Your task to perform on an android device: Go to Amazon Image 0: 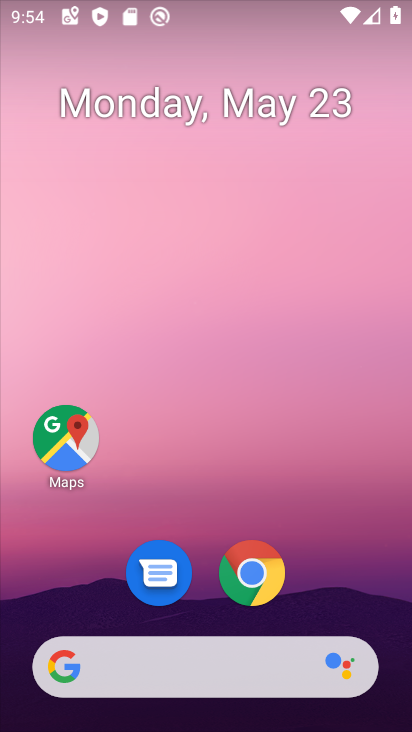
Step 0: drag from (396, 624) to (384, 414)
Your task to perform on an android device: Go to Amazon Image 1: 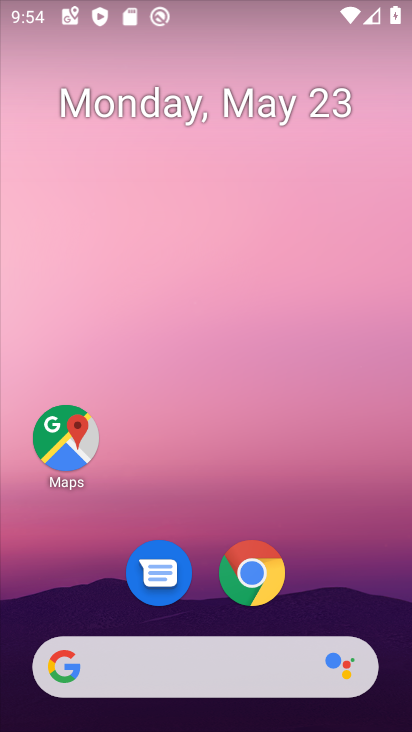
Step 1: drag from (355, 614) to (353, 233)
Your task to perform on an android device: Go to Amazon Image 2: 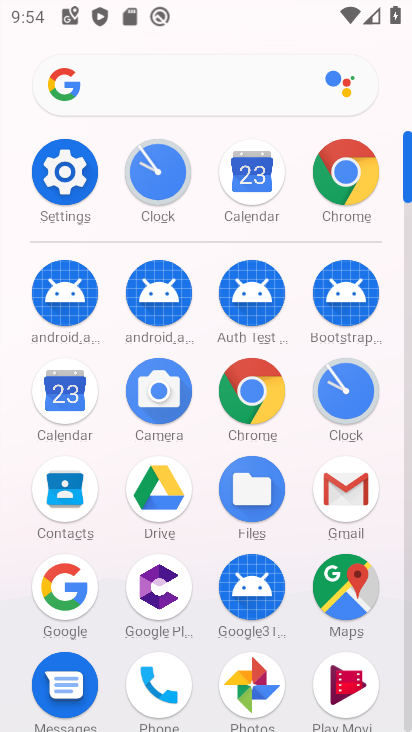
Step 2: click (240, 400)
Your task to perform on an android device: Go to Amazon Image 3: 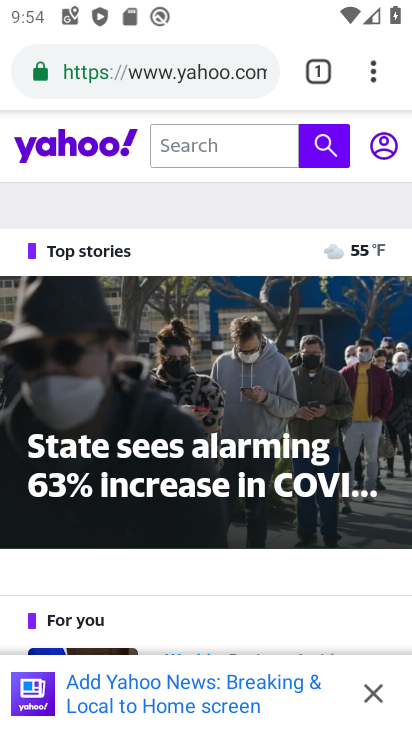
Step 3: press back button
Your task to perform on an android device: Go to Amazon Image 4: 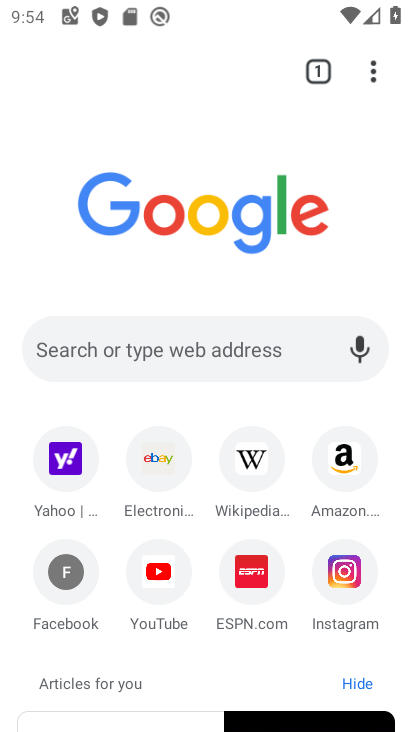
Step 4: click (339, 481)
Your task to perform on an android device: Go to Amazon Image 5: 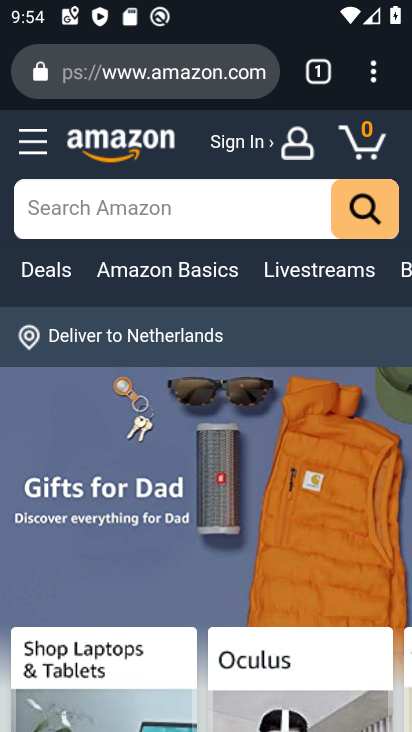
Step 5: task complete